Your task to perform on an android device: turn off picture-in-picture Image 0: 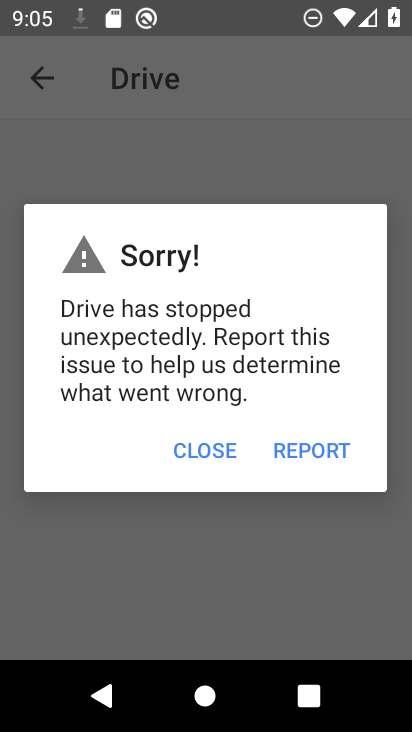
Step 0: press home button
Your task to perform on an android device: turn off picture-in-picture Image 1: 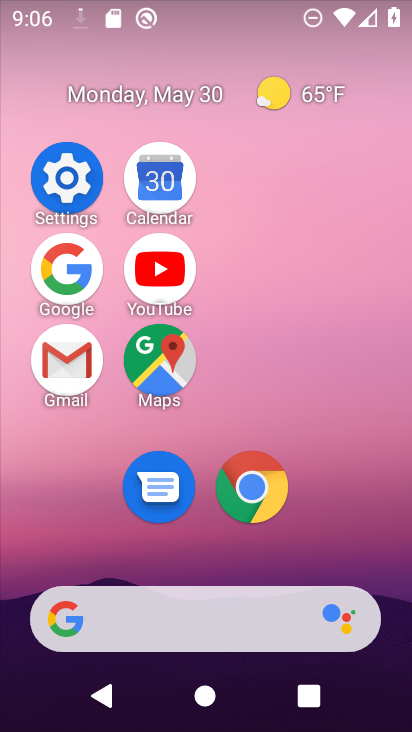
Step 1: click (272, 486)
Your task to perform on an android device: turn off picture-in-picture Image 2: 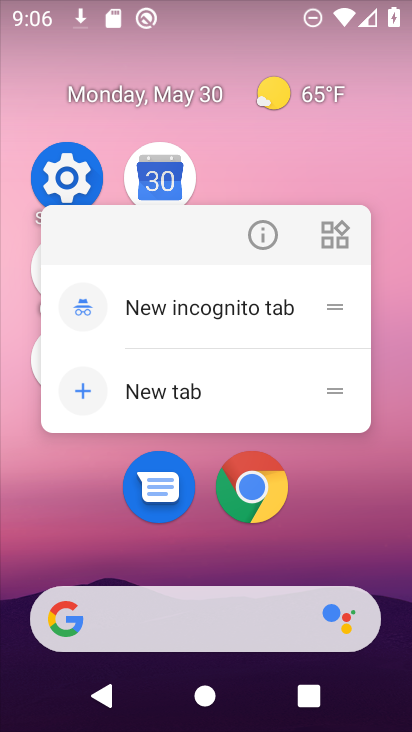
Step 2: click (256, 223)
Your task to perform on an android device: turn off picture-in-picture Image 3: 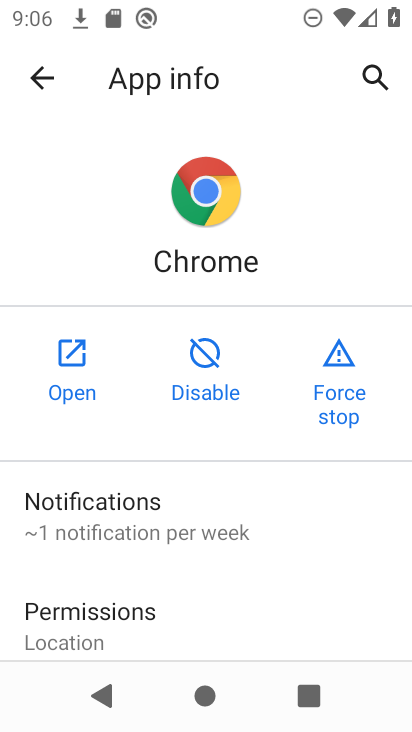
Step 3: drag from (291, 589) to (292, 168)
Your task to perform on an android device: turn off picture-in-picture Image 4: 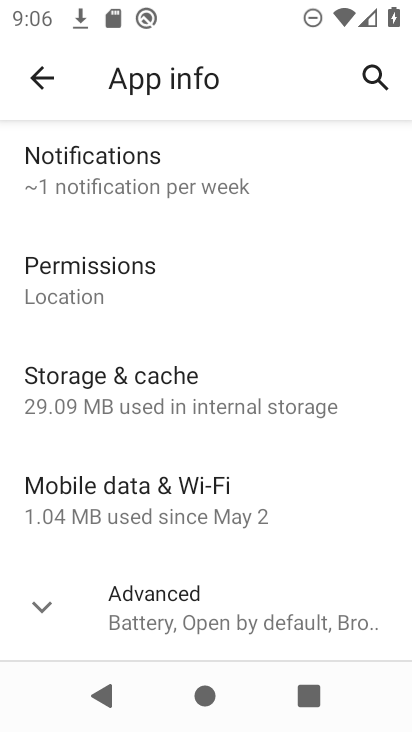
Step 4: click (226, 609)
Your task to perform on an android device: turn off picture-in-picture Image 5: 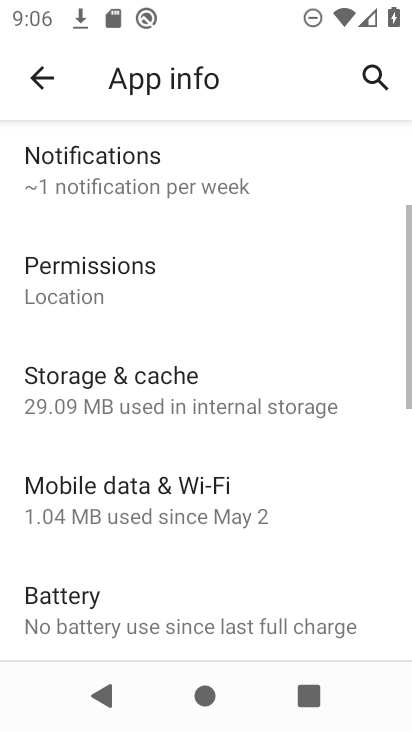
Step 5: drag from (271, 561) to (254, 231)
Your task to perform on an android device: turn off picture-in-picture Image 6: 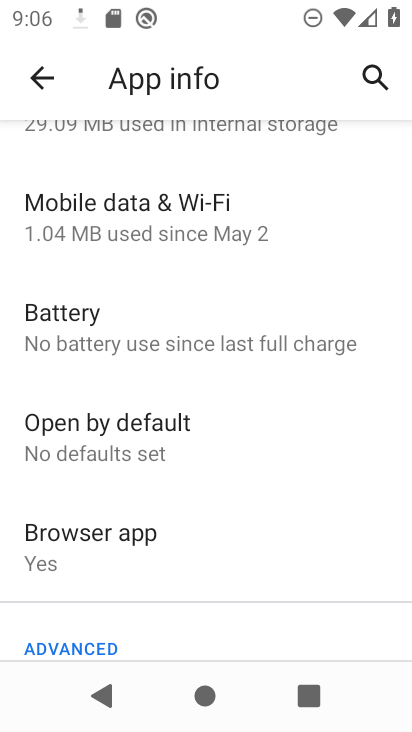
Step 6: drag from (205, 503) to (207, 183)
Your task to perform on an android device: turn off picture-in-picture Image 7: 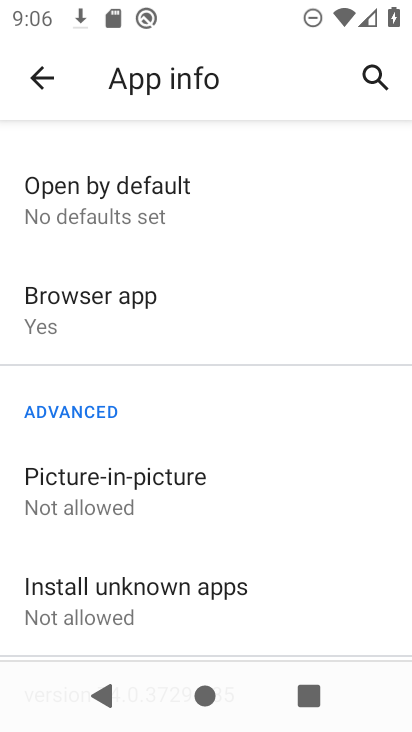
Step 7: click (204, 489)
Your task to perform on an android device: turn off picture-in-picture Image 8: 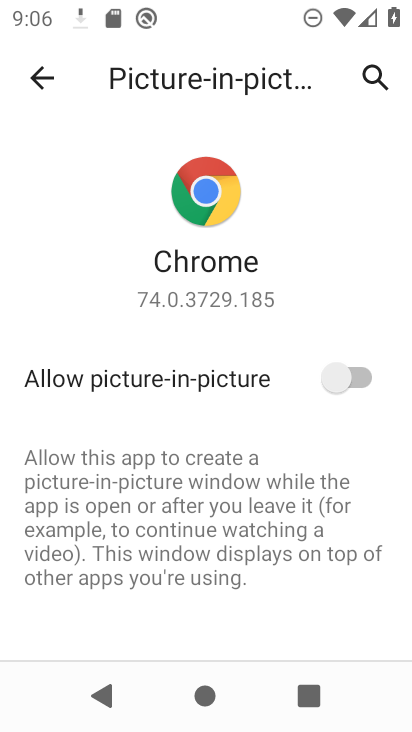
Step 8: task complete